Your task to perform on an android device: Open Google Chrome Image 0: 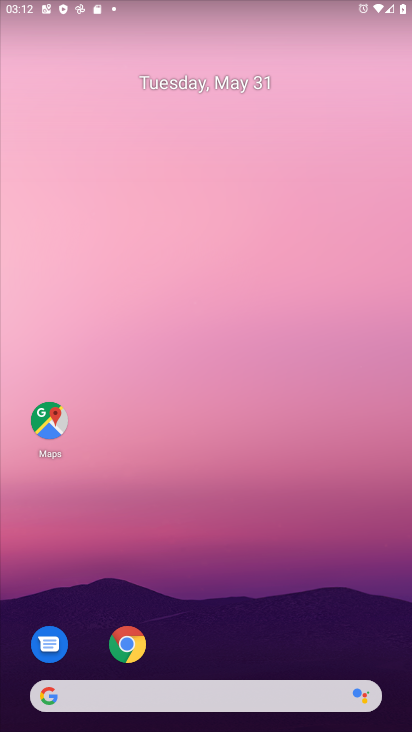
Step 0: click (126, 646)
Your task to perform on an android device: Open Google Chrome Image 1: 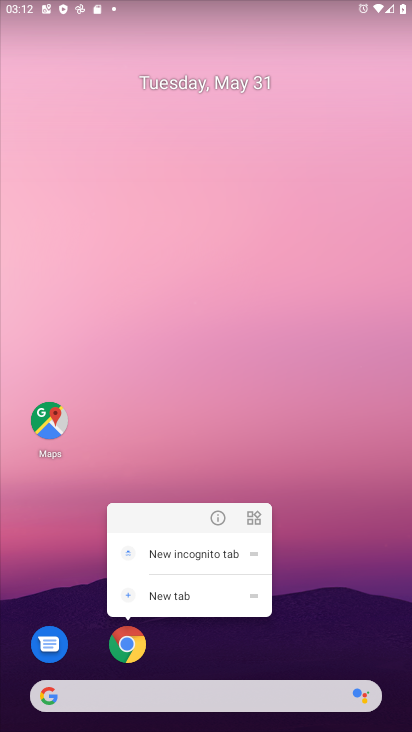
Step 1: click (127, 640)
Your task to perform on an android device: Open Google Chrome Image 2: 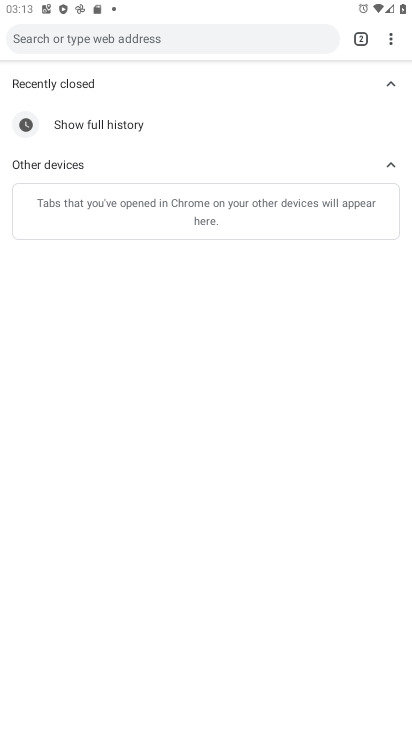
Step 2: task complete